Your task to perform on an android device: delete the emails in spam in the gmail app Image 0: 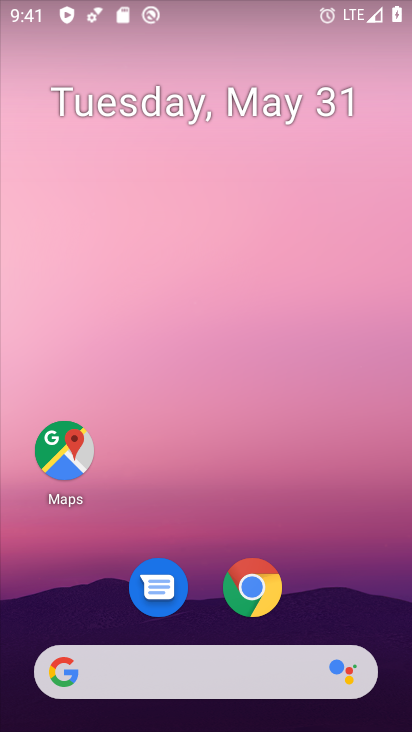
Step 0: drag from (348, 580) to (372, 246)
Your task to perform on an android device: delete the emails in spam in the gmail app Image 1: 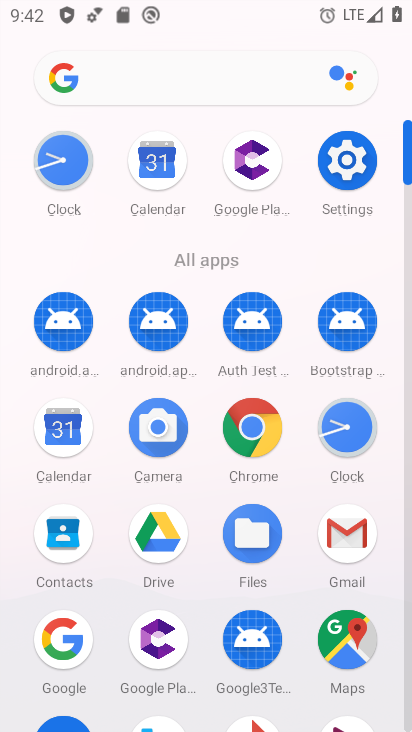
Step 1: drag from (293, 558) to (309, 324)
Your task to perform on an android device: delete the emails in spam in the gmail app Image 2: 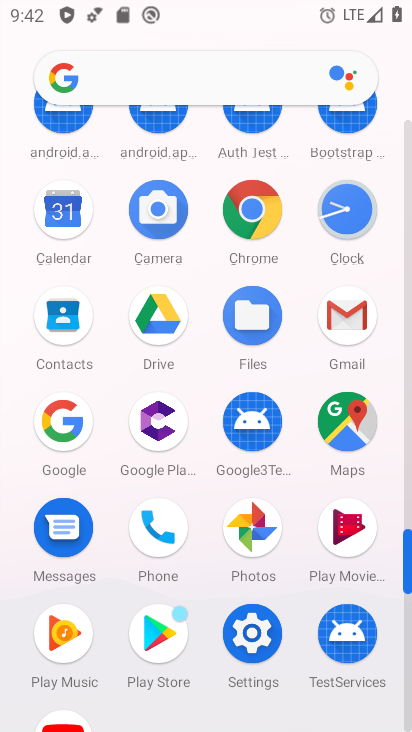
Step 2: drag from (285, 588) to (305, 429)
Your task to perform on an android device: delete the emails in spam in the gmail app Image 3: 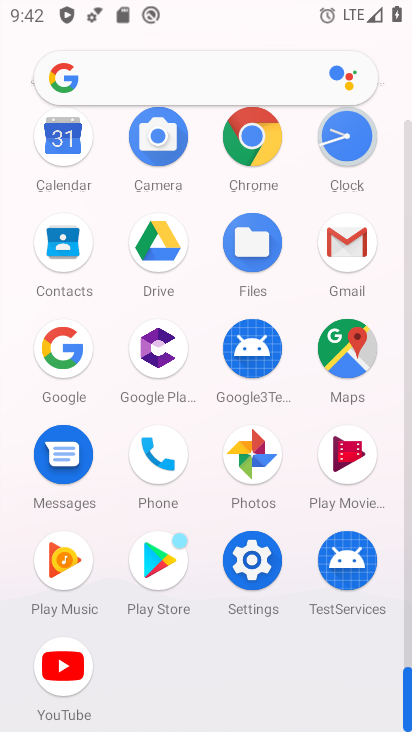
Step 3: drag from (300, 214) to (296, 345)
Your task to perform on an android device: delete the emails in spam in the gmail app Image 4: 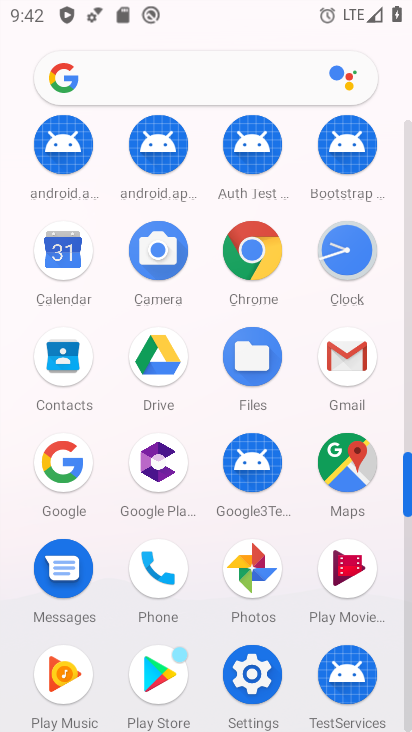
Step 4: drag from (288, 184) to (299, 317)
Your task to perform on an android device: delete the emails in spam in the gmail app Image 5: 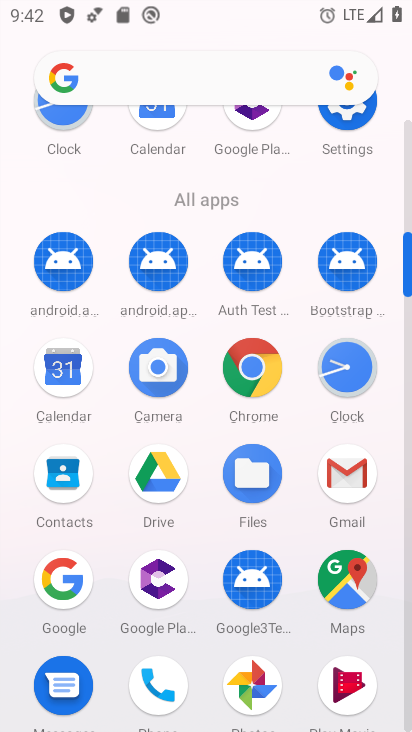
Step 5: drag from (294, 177) to (291, 330)
Your task to perform on an android device: delete the emails in spam in the gmail app Image 6: 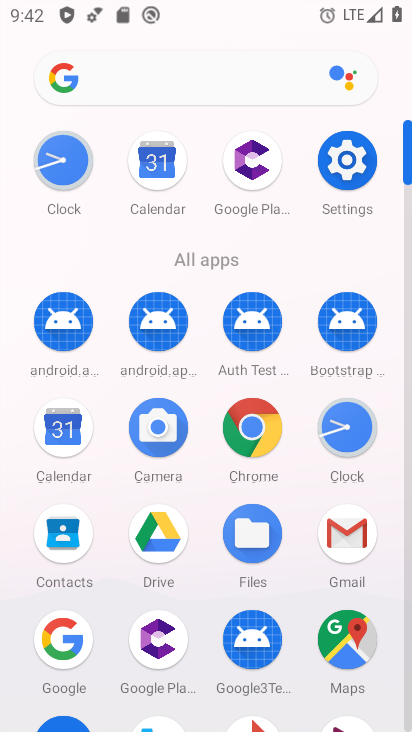
Step 6: drag from (297, 472) to (301, 323)
Your task to perform on an android device: delete the emails in spam in the gmail app Image 7: 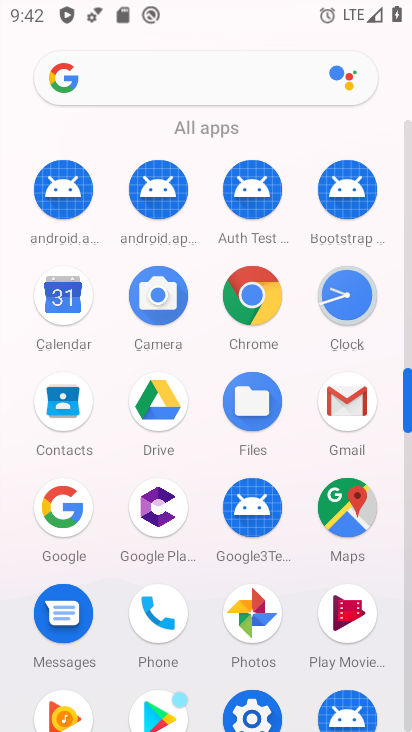
Step 7: drag from (302, 554) to (296, 381)
Your task to perform on an android device: delete the emails in spam in the gmail app Image 8: 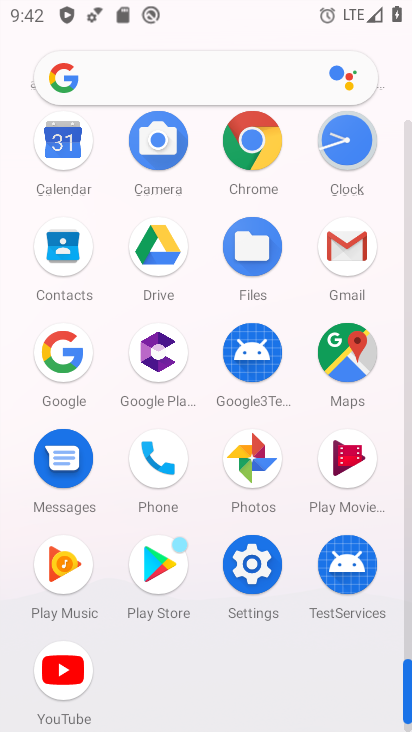
Step 8: drag from (383, 217) to (379, 338)
Your task to perform on an android device: delete the emails in spam in the gmail app Image 9: 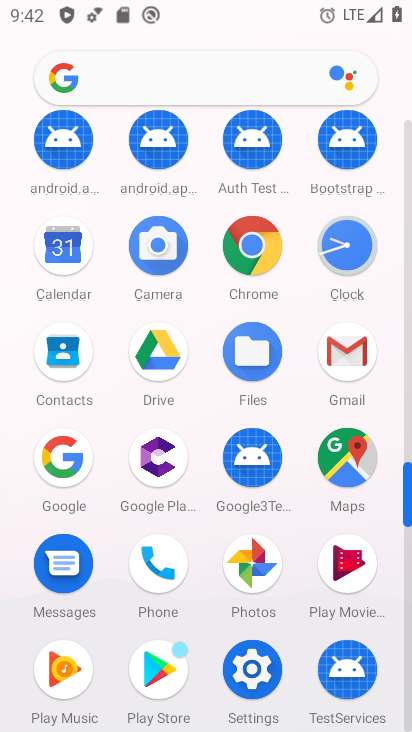
Step 9: click (350, 352)
Your task to perform on an android device: delete the emails in spam in the gmail app Image 10: 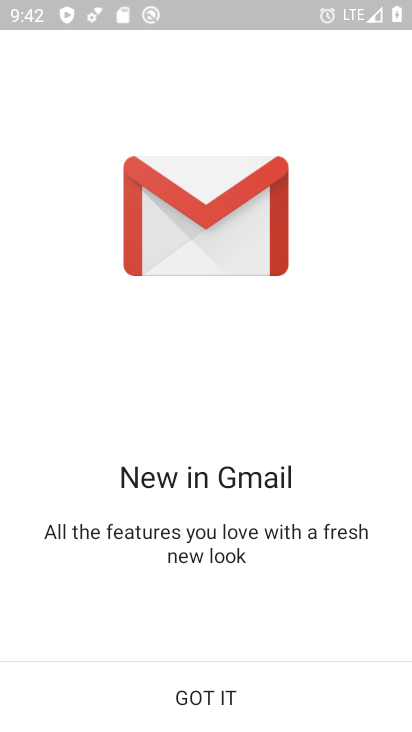
Step 10: click (218, 704)
Your task to perform on an android device: delete the emails in spam in the gmail app Image 11: 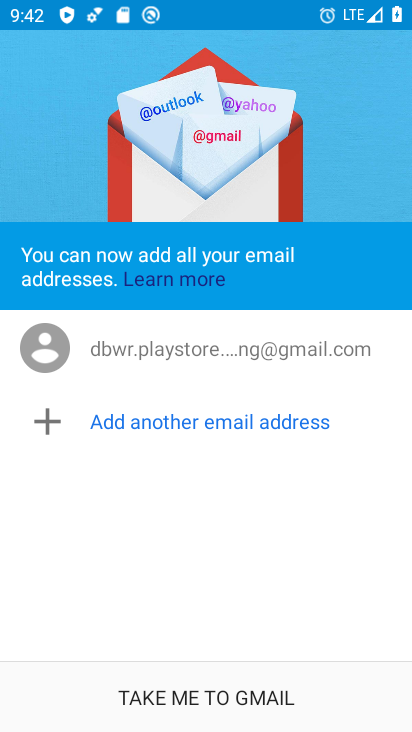
Step 11: click (218, 704)
Your task to perform on an android device: delete the emails in spam in the gmail app Image 12: 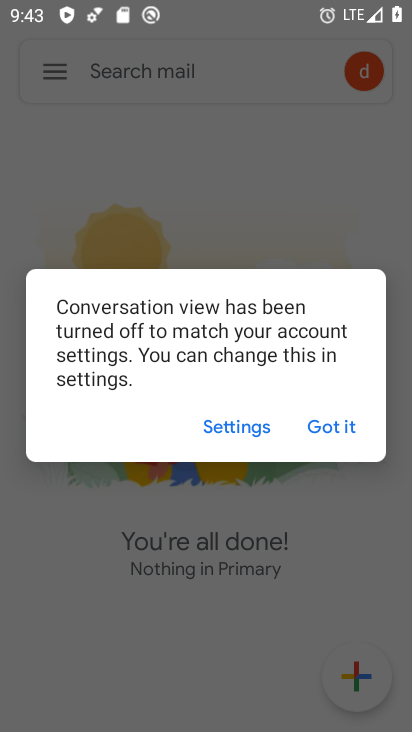
Step 12: click (343, 429)
Your task to perform on an android device: delete the emails in spam in the gmail app Image 13: 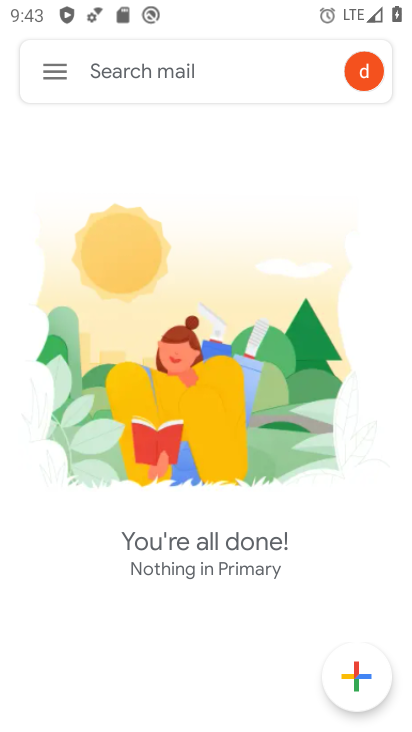
Step 13: task complete